Your task to perform on an android device: turn off improve location accuracy Image 0: 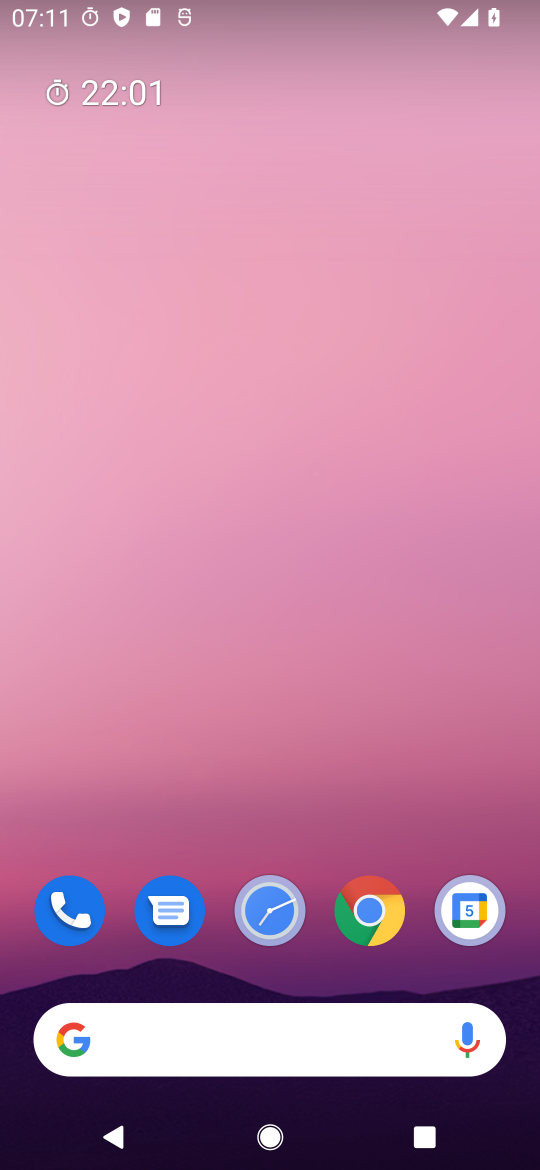
Step 0: drag from (287, 1039) to (316, 127)
Your task to perform on an android device: turn off improve location accuracy Image 1: 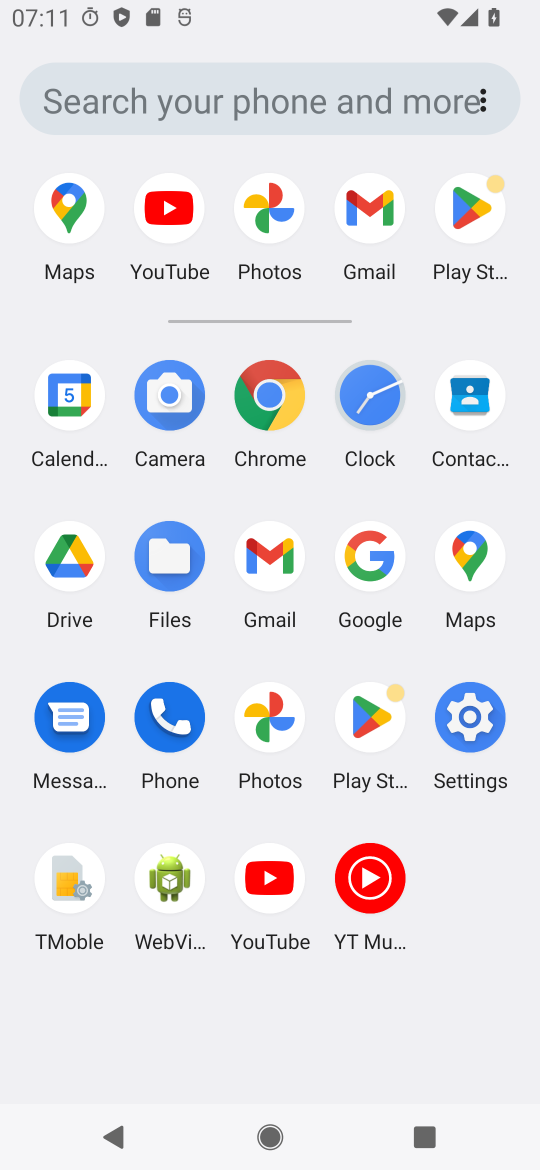
Step 1: click (477, 720)
Your task to perform on an android device: turn off improve location accuracy Image 2: 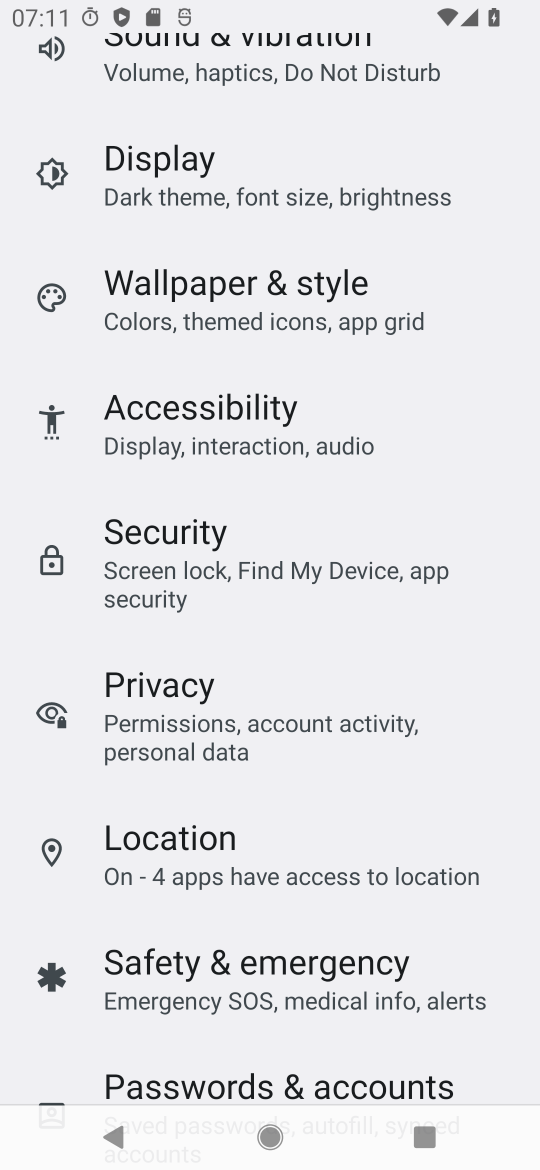
Step 2: click (205, 849)
Your task to perform on an android device: turn off improve location accuracy Image 3: 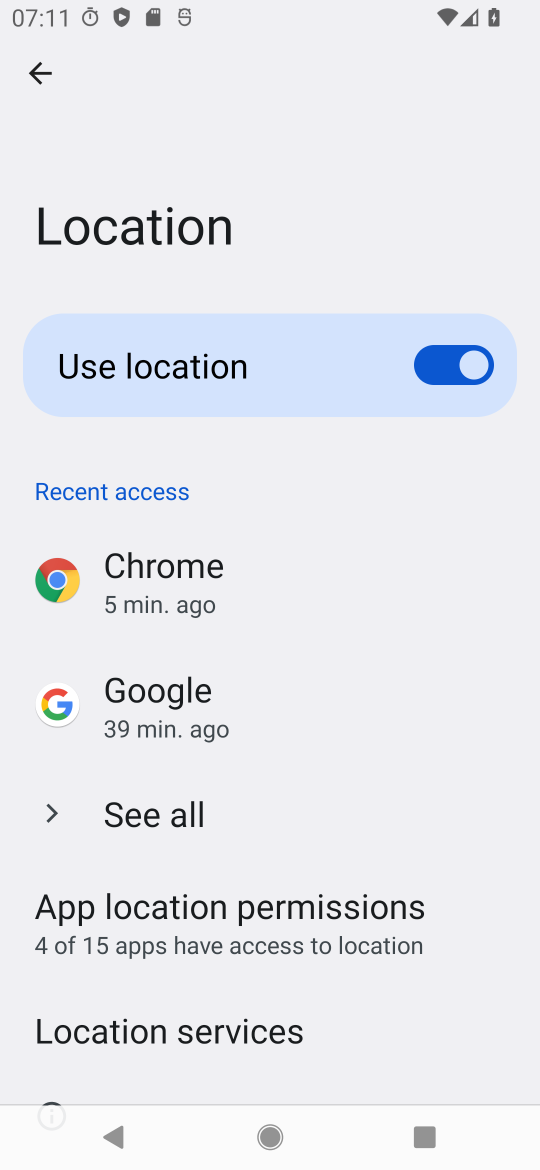
Step 3: drag from (358, 1074) to (409, 419)
Your task to perform on an android device: turn off improve location accuracy Image 4: 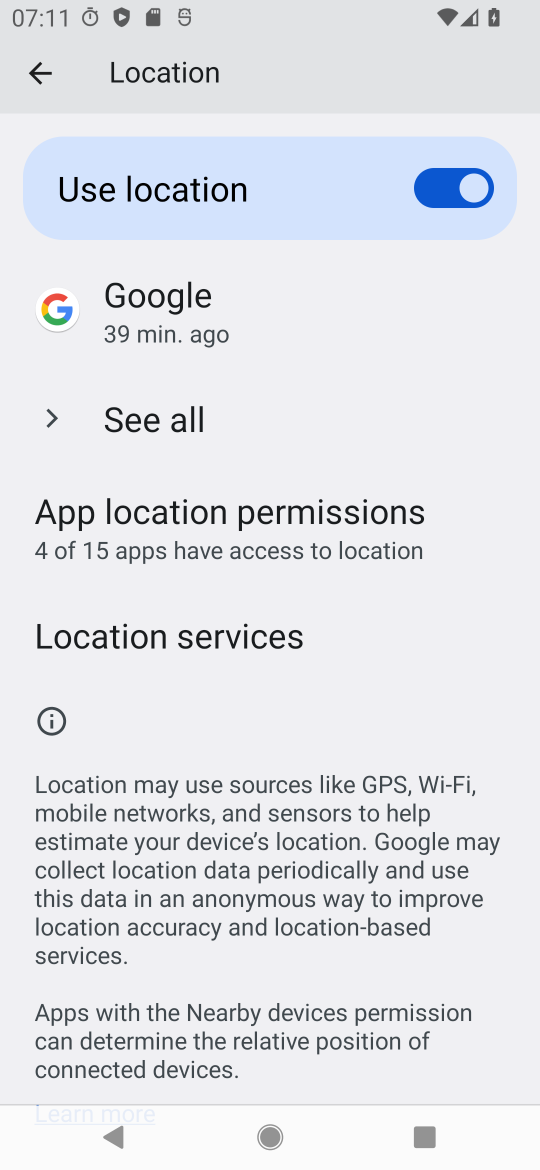
Step 4: click (241, 630)
Your task to perform on an android device: turn off improve location accuracy Image 5: 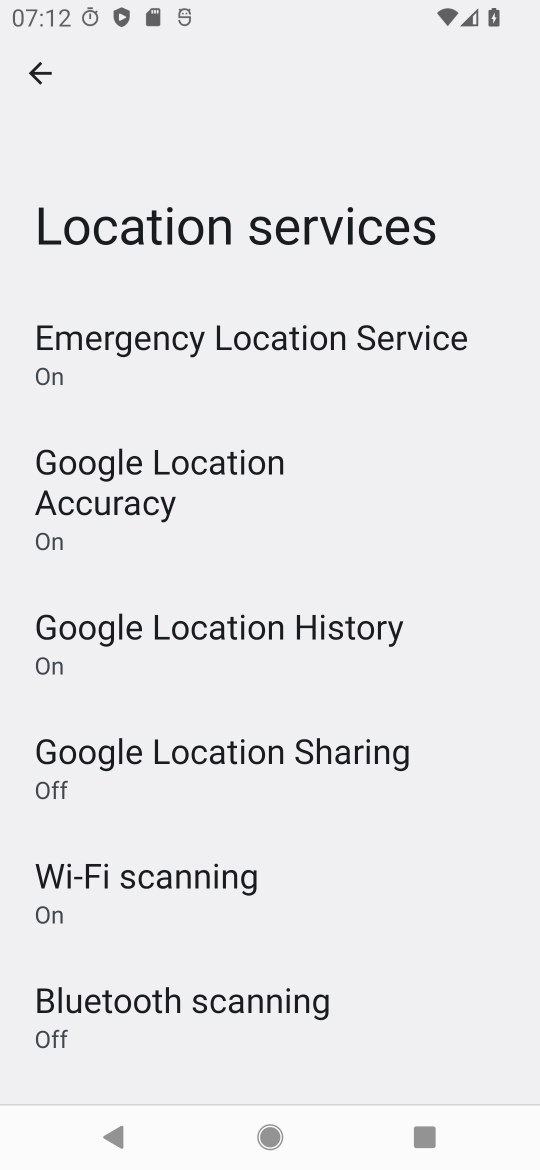
Step 5: click (237, 481)
Your task to perform on an android device: turn off improve location accuracy Image 6: 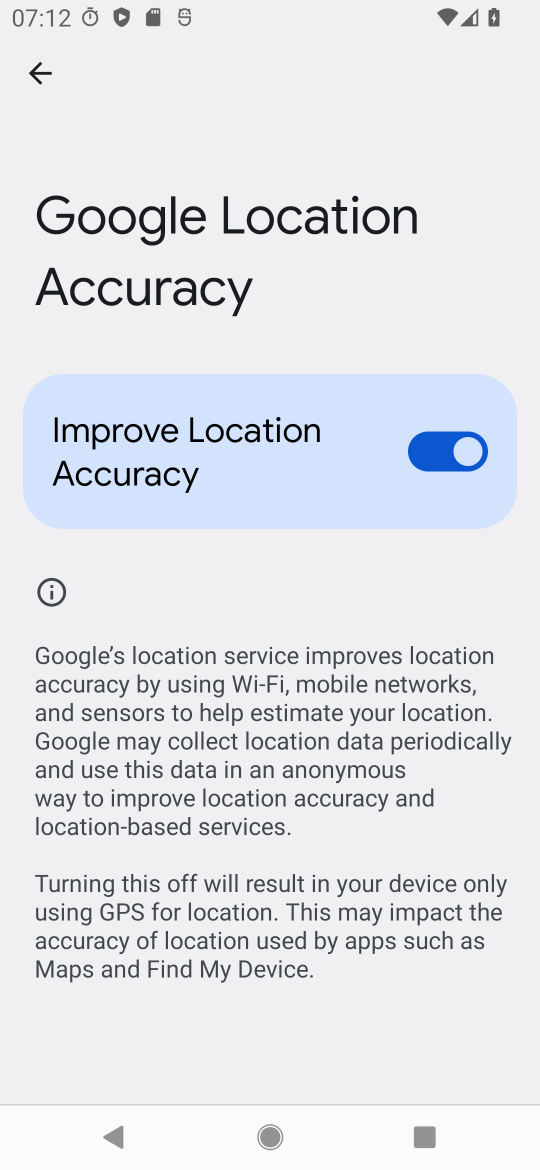
Step 6: click (419, 443)
Your task to perform on an android device: turn off improve location accuracy Image 7: 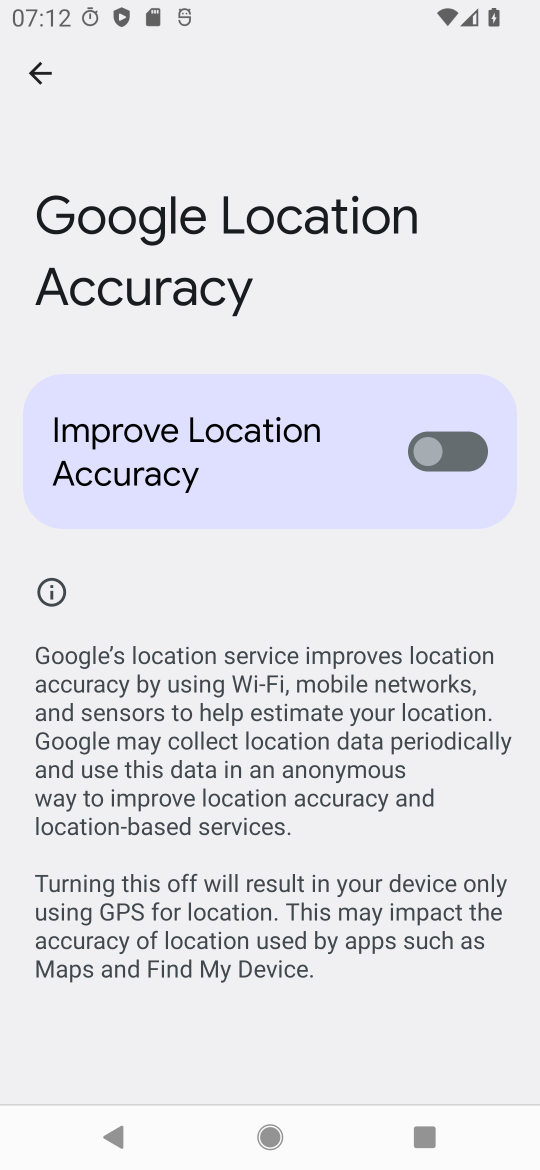
Step 7: task complete